Your task to perform on an android device: stop showing notifications on the lock screen Image 0: 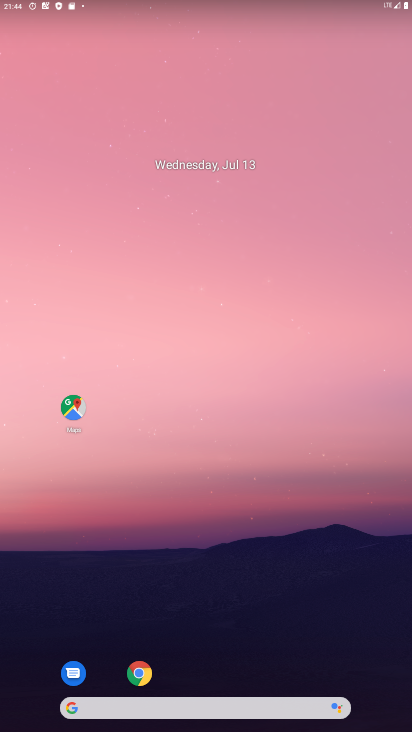
Step 0: click (245, 360)
Your task to perform on an android device: stop showing notifications on the lock screen Image 1: 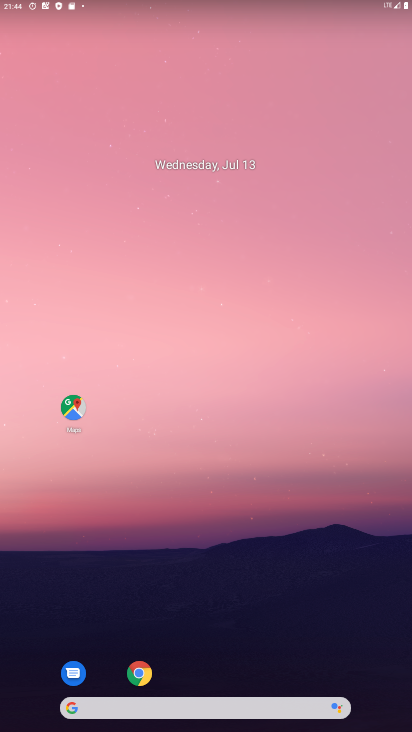
Step 1: drag from (200, 606) to (218, 169)
Your task to perform on an android device: stop showing notifications on the lock screen Image 2: 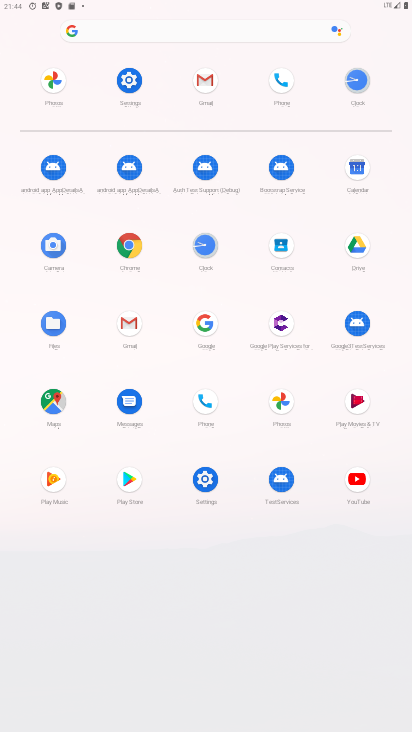
Step 2: drag from (231, 644) to (278, 427)
Your task to perform on an android device: stop showing notifications on the lock screen Image 3: 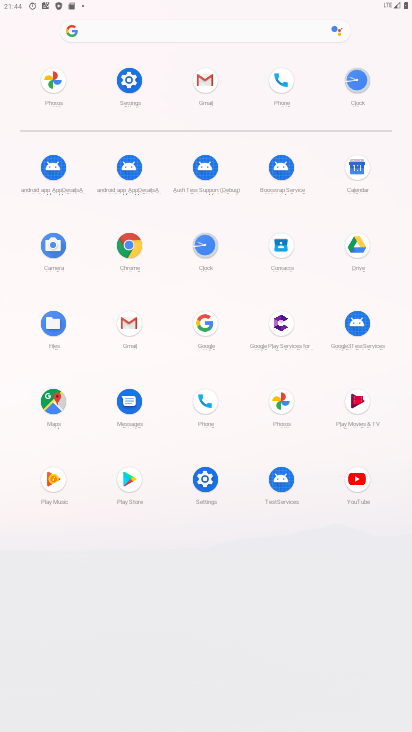
Step 3: click (209, 478)
Your task to perform on an android device: stop showing notifications on the lock screen Image 4: 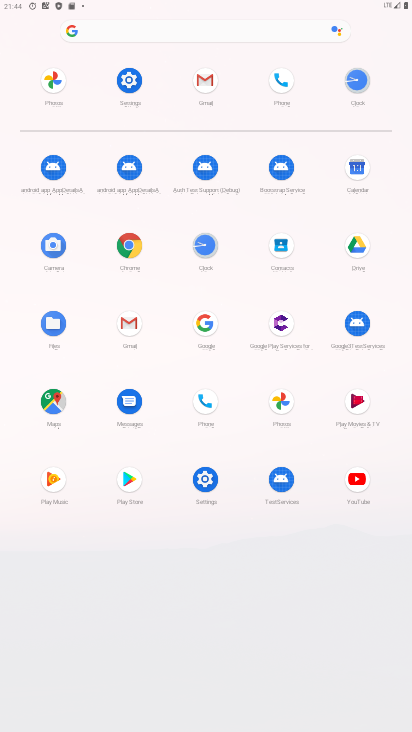
Step 4: click (209, 478)
Your task to perform on an android device: stop showing notifications on the lock screen Image 5: 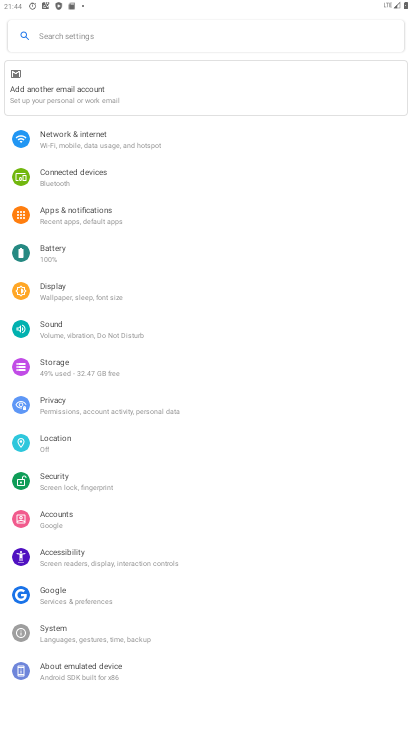
Step 5: click (148, 134)
Your task to perform on an android device: stop showing notifications on the lock screen Image 6: 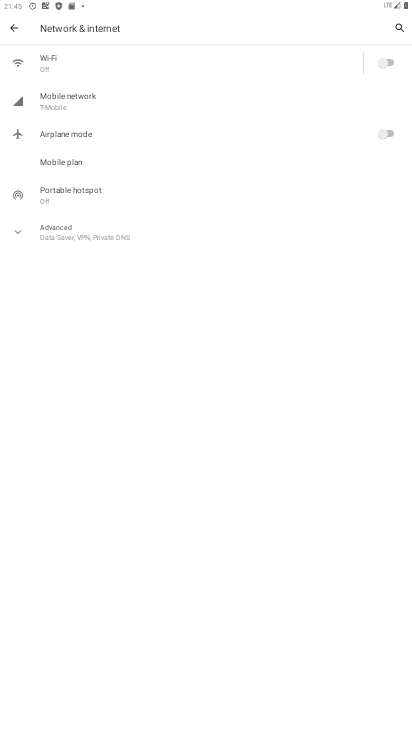
Step 6: drag from (331, 461) to (282, 169)
Your task to perform on an android device: stop showing notifications on the lock screen Image 7: 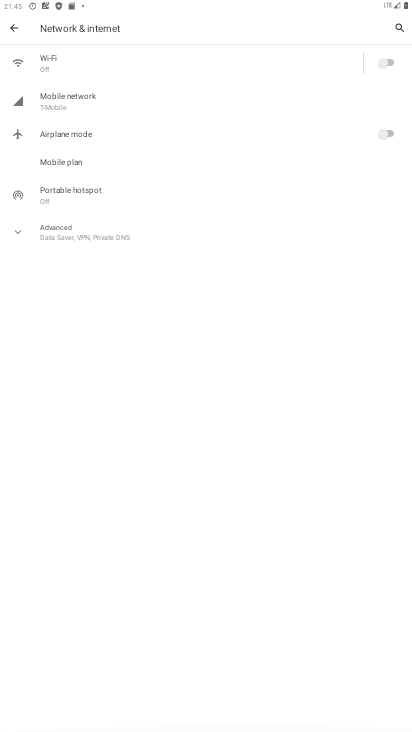
Step 7: click (55, 235)
Your task to perform on an android device: stop showing notifications on the lock screen Image 8: 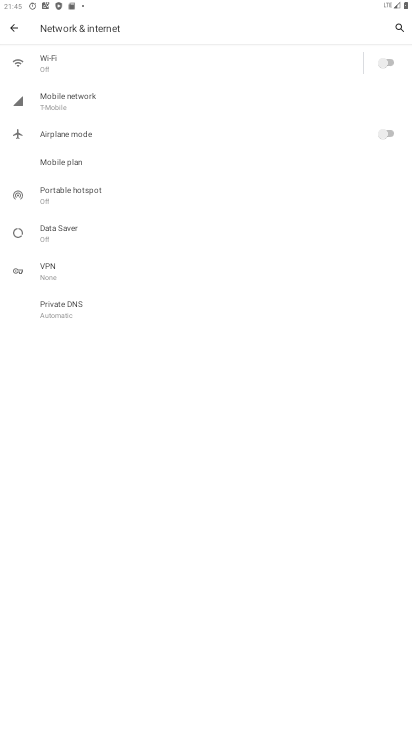
Step 8: drag from (144, 351) to (167, 176)
Your task to perform on an android device: stop showing notifications on the lock screen Image 9: 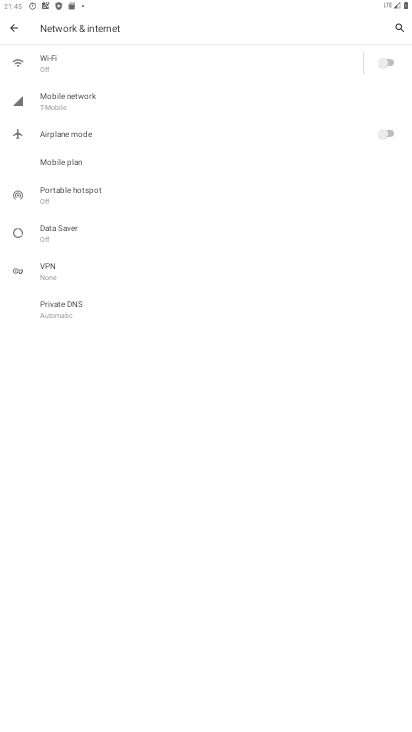
Step 9: drag from (146, 478) to (149, 211)
Your task to perform on an android device: stop showing notifications on the lock screen Image 10: 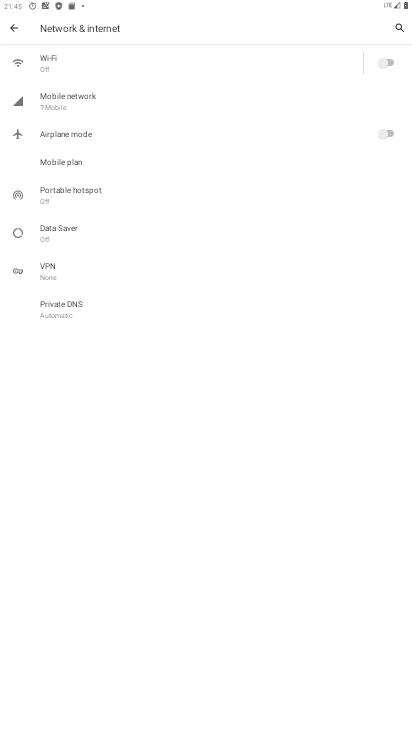
Step 10: click (15, 22)
Your task to perform on an android device: stop showing notifications on the lock screen Image 11: 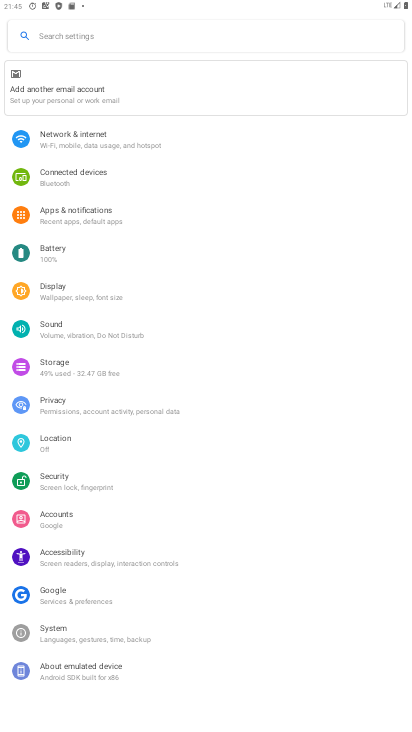
Step 11: drag from (214, 631) to (268, 322)
Your task to perform on an android device: stop showing notifications on the lock screen Image 12: 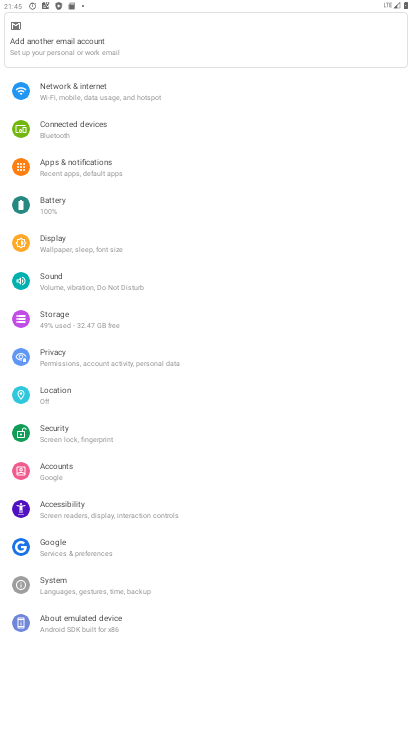
Step 12: drag from (108, 135) to (183, 616)
Your task to perform on an android device: stop showing notifications on the lock screen Image 13: 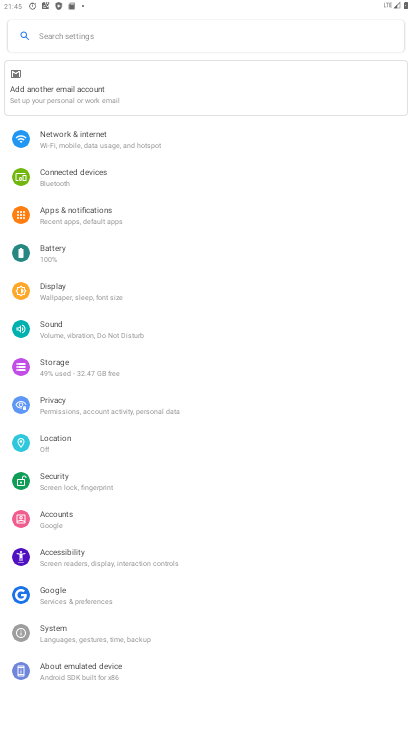
Step 13: drag from (184, 172) to (146, 721)
Your task to perform on an android device: stop showing notifications on the lock screen Image 14: 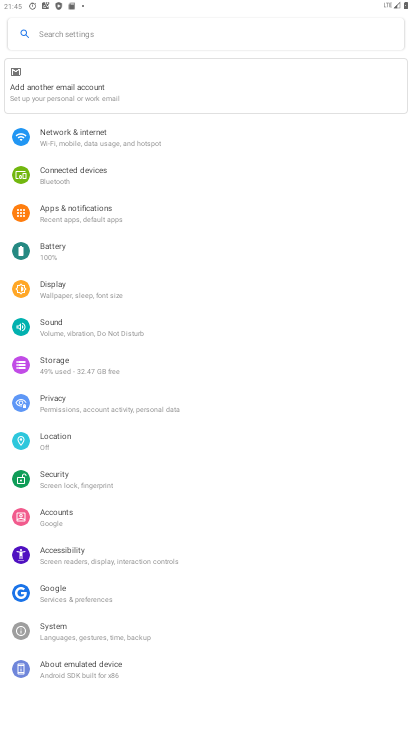
Step 14: drag from (105, 292) to (261, 722)
Your task to perform on an android device: stop showing notifications on the lock screen Image 15: 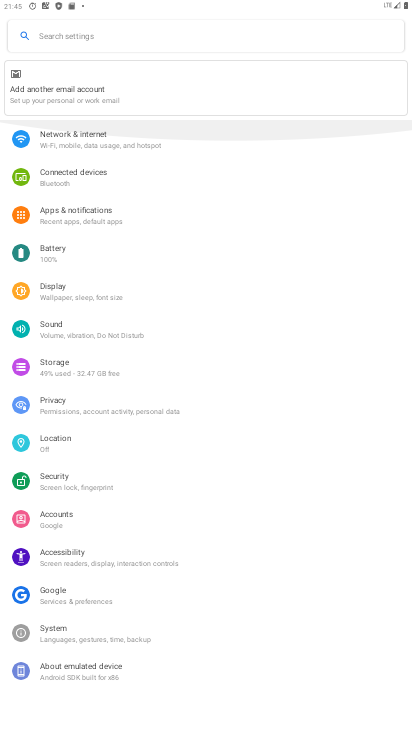
Step 15: drag from (226, 605) to (254, 325)
Your task to perform on an android device: stop showing notifications on the lock screen Image 16: 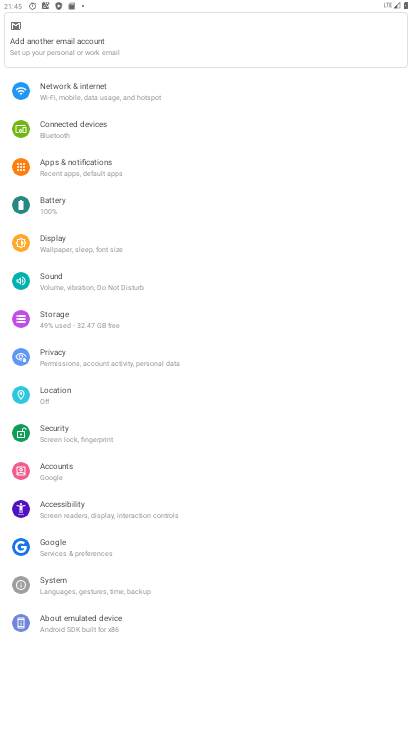
Step 16: drag from (184, 229) to (218, 727)
Your task to perform on an android device: stop showing notifications on the lock screen Image 17: 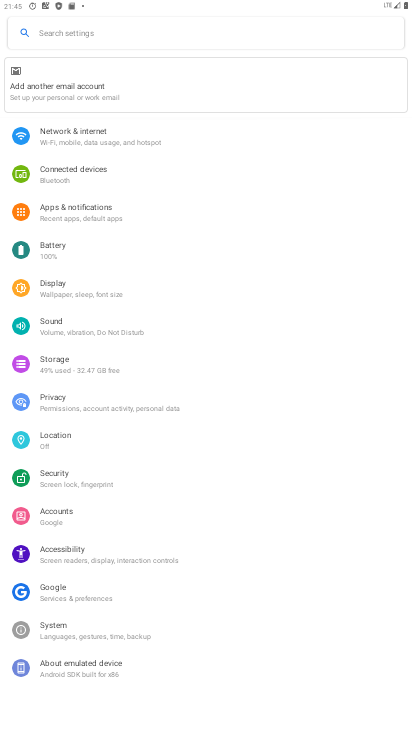
Step 17: drag from (147, 165) to (359, 691)
Your task to perform on an android device: stop showing notifications on the lock screen Image 18: 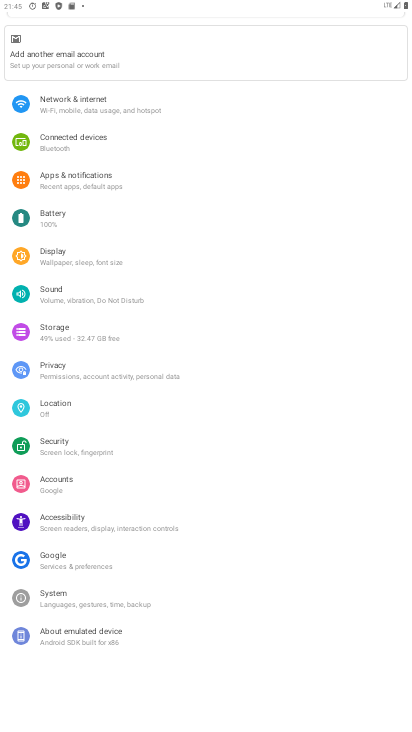
Step 18: click (119, 187)
Your task to perform on an android device: stop showing notifications on the lock screen Image 19: 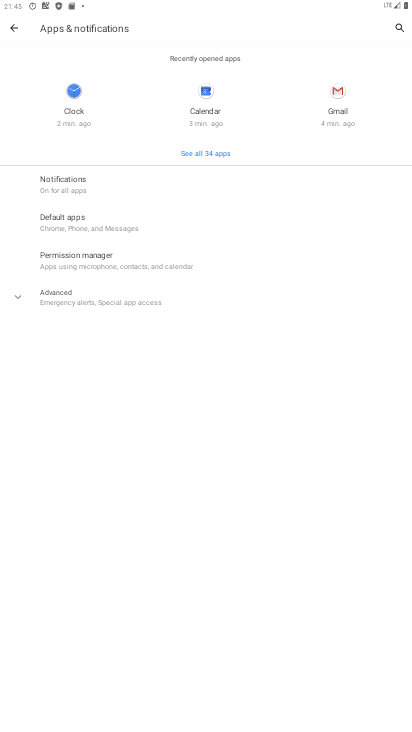
Step 19: click (101, 186)
Your task to perform on an android device: stop showing notifications on the lock screen Image 20: 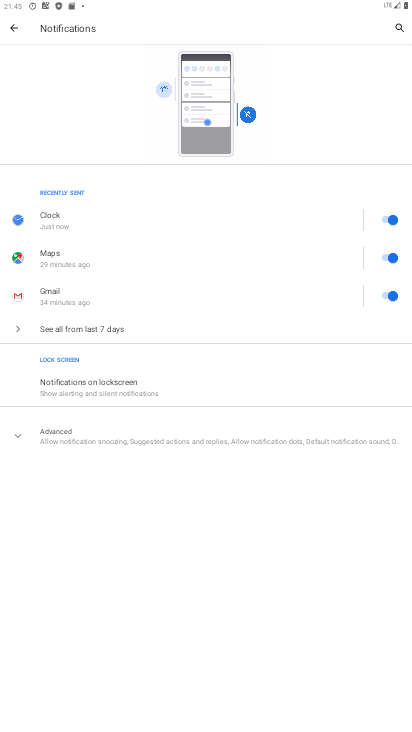
Step 20: drag from (173, 448) to (190, 335)
Your task to perform on an android device: stop showing notifications on the lock screen Image 21: 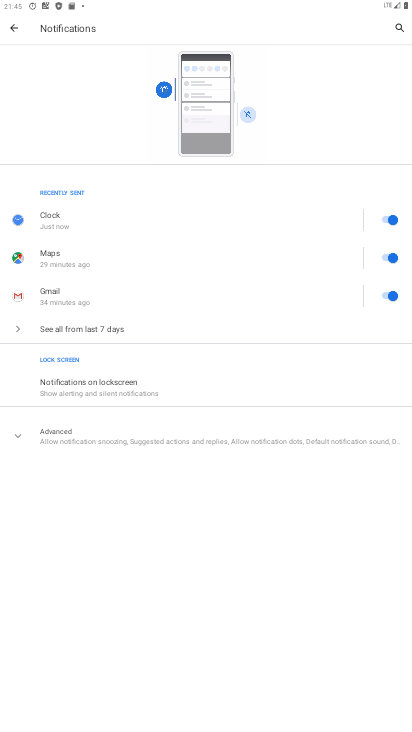
Step 21: click (101, 437)
Your task to perform on an android device: stop showing notifications on the lock screen Image 22: 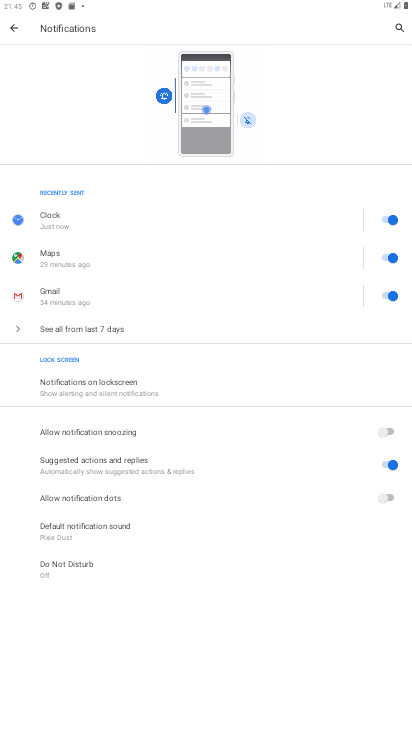
Step 22: drag from (167, 621) to (256, 316)
Your task to perform on an android device: stop showing notifications on the lock screen Image 23: 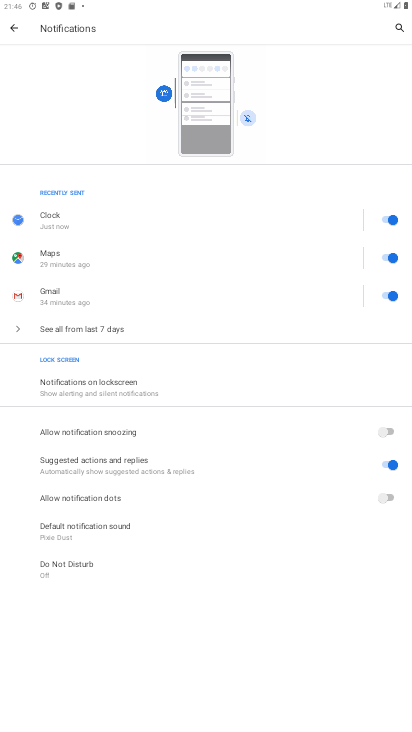
Step 23: click (151, 381)
Your task to perform on an android device: stop showing notifications on the lock screen Image 24: 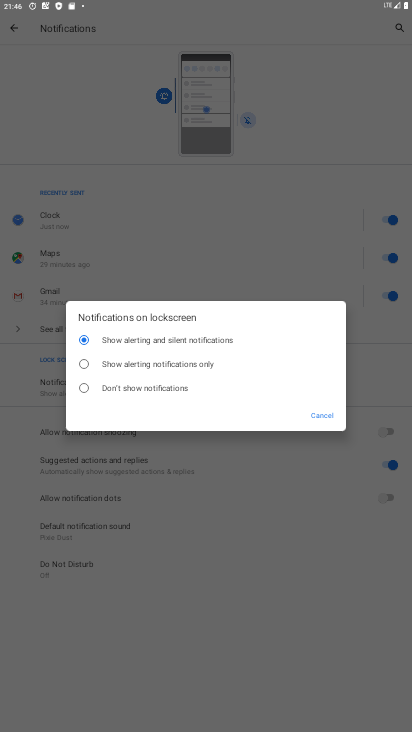
Step 24: drag from (276, 630) to (276, 457)
Your task to perform on an android device: stop showing notifications on the lock screen Image 25: 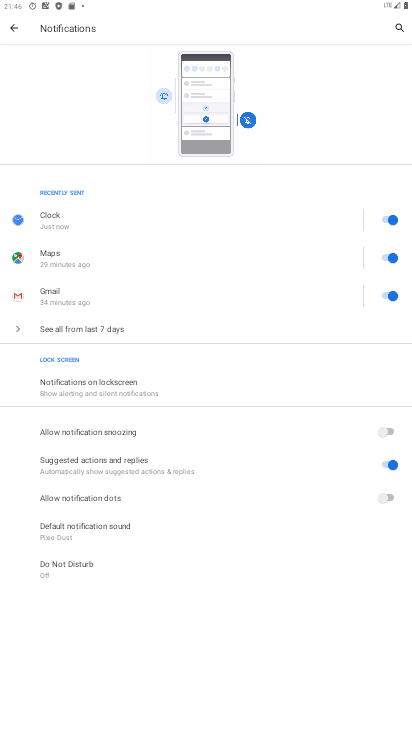
Step 25: click (143, 390)
Your task to perform on an android device: stop showing notifications on the lock screen Image 26: 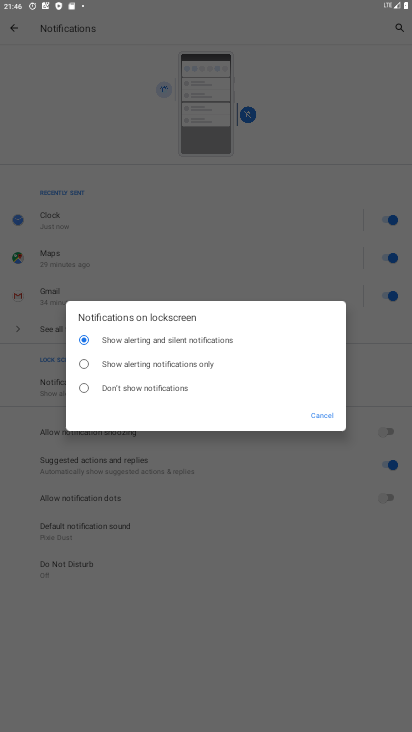
Step 26: click (98, 368)
Your task to perform on an android device: stop showing notifications on the lock screen Image 27: 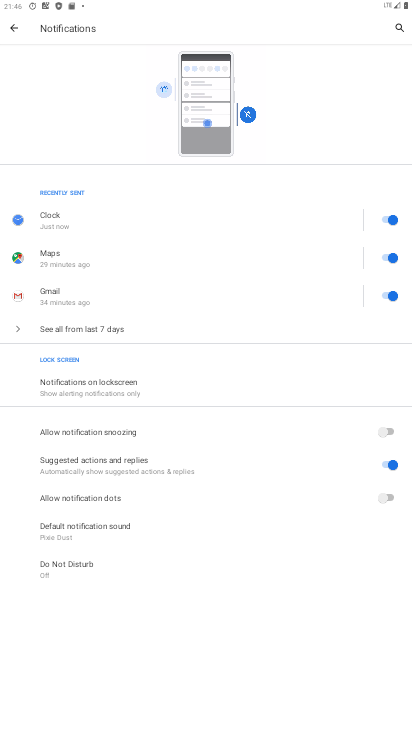
Step 27: task complete